Your task to perform on an android device: Go to display settings Image 0: 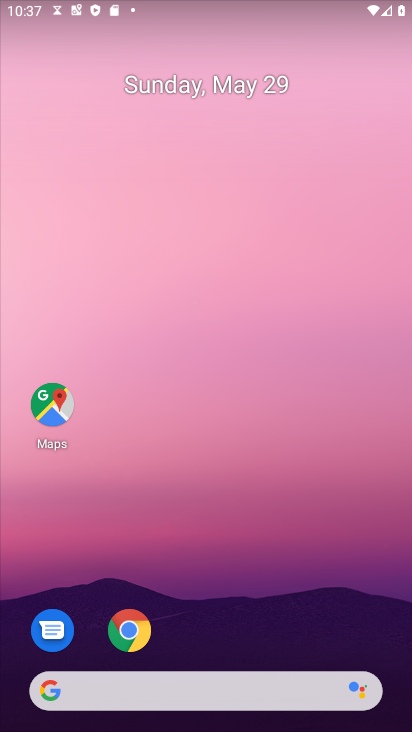
Step 0: drag from (278, 606) to (276, 242)
Your task to perform on an android device: Go to display settings Image 1: 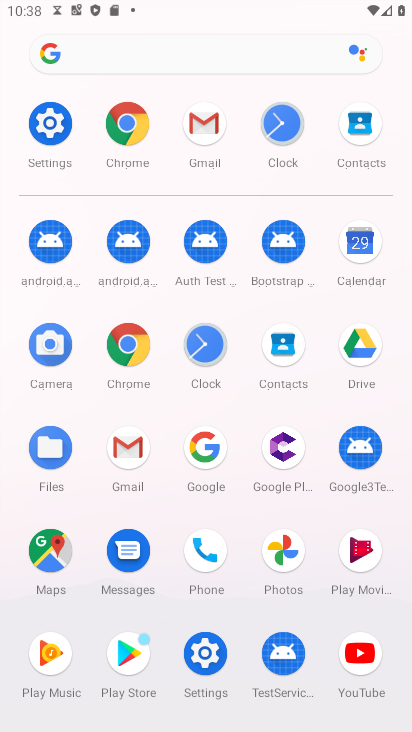
Step 1: click (53, 132)
Your task to perform on an android device: Go to display settings Image 2: 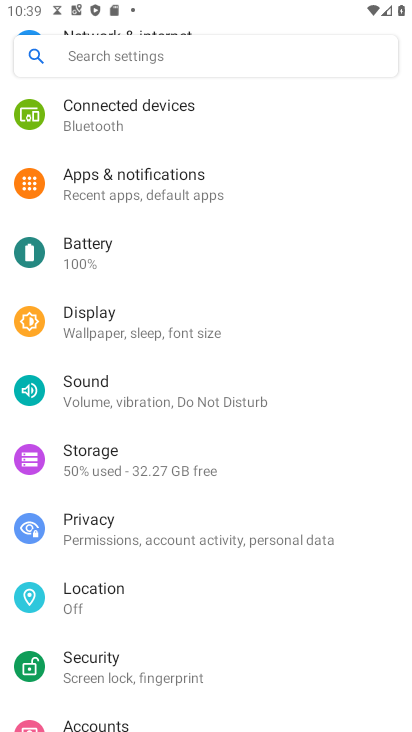
Step 2: click (81, 309)
Your task to perform on an android device: Go to display settings Image 3: 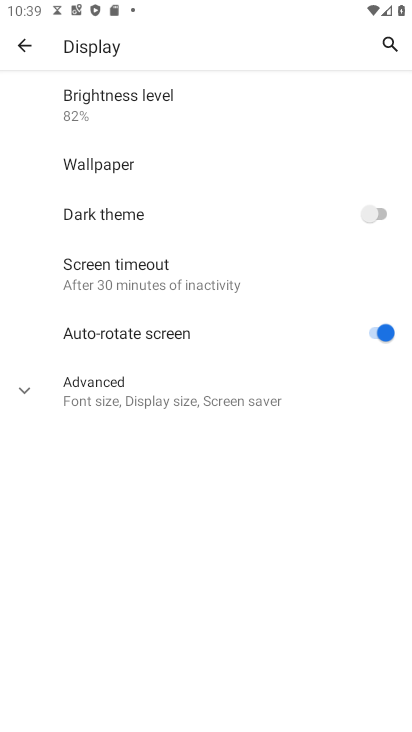
Step 3: task complete